Your task to perform on an android device: open sync settings in chrome Image 0: 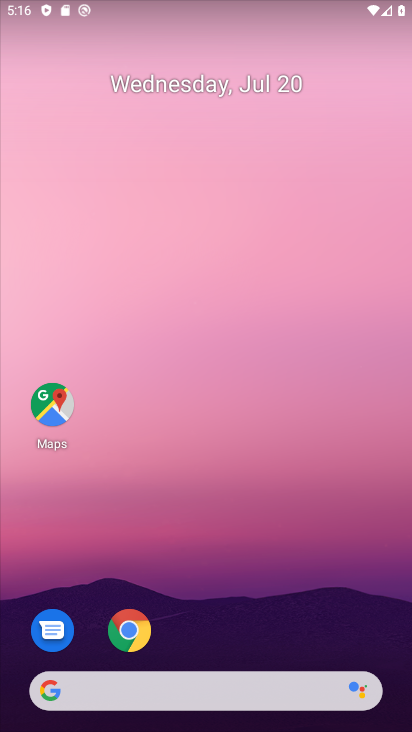
Step 0: drag from (279, 679) to (345, 27)
Your task to perform on an android device: open sync settings in chrome Image 1: 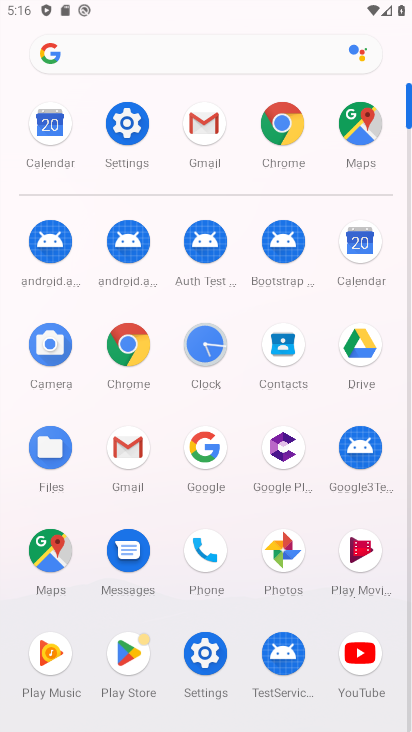
Step 1: click (121, 344)
Your task to perform on an android device: open sync settings in chrome Image 2: 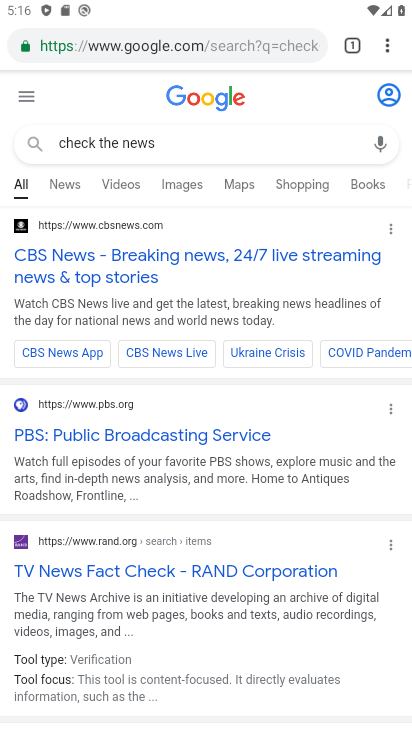
Step 2: drag from (384, 45) to (269, 445)
Your task to perform on an android device: open sync settings in chrome Image 3: 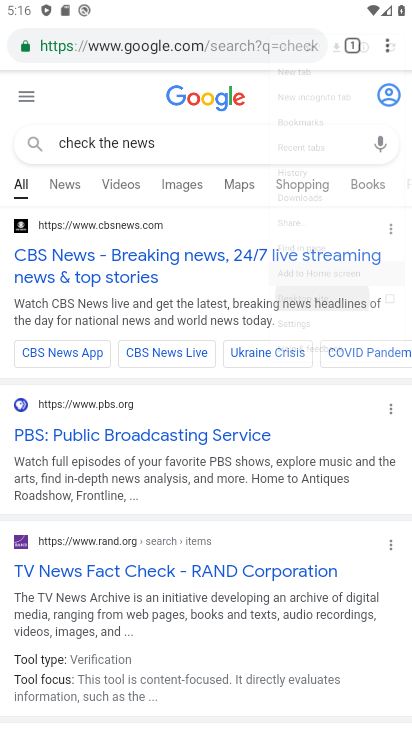
Step 3: click (241, 490)
Your task to perform on an android device: open sync settings in chrome Image 4: 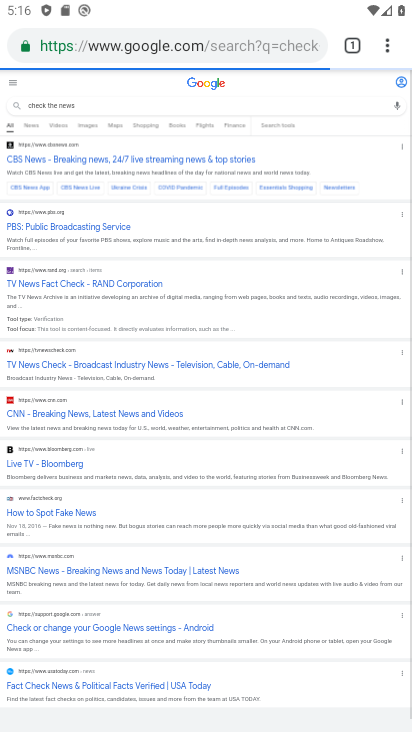
Step 4: drag from (383, 44) to (230, 544)
Your task to perform on an android device: open sync settings in chrome Image 5: 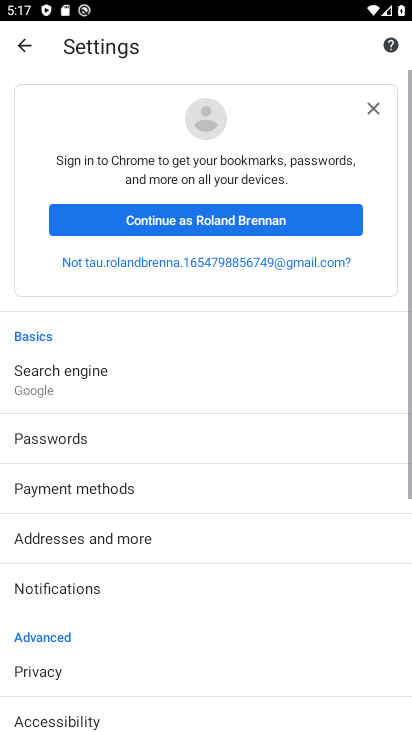
Step 5: drag from (237, 583) to (306, 144)
Your task to perform on an android device: open sync settings in chrome Image 6: 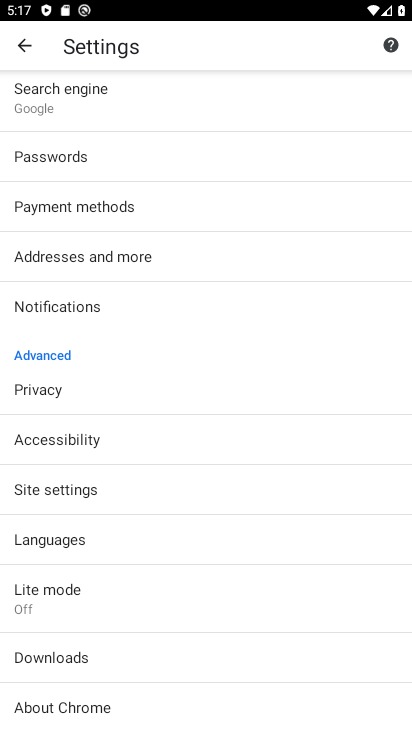
Step 6: click (96, 496)
Your task to perform on an android device: open sync settings in chrome Image 7: 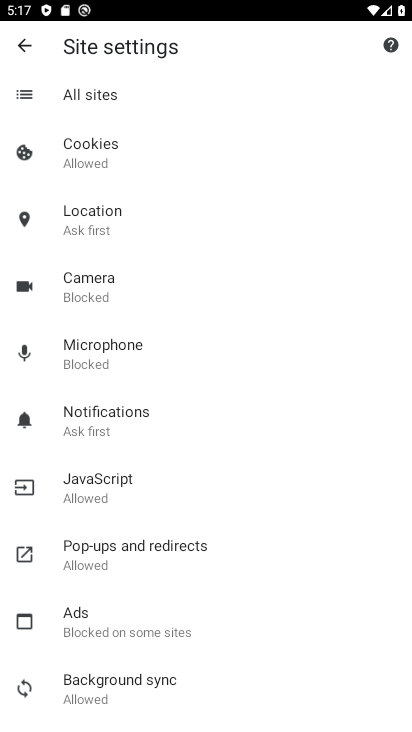
Step 7: click (139, 686)
Your task to perform on an android device: open sync settings in chrome Image 8: 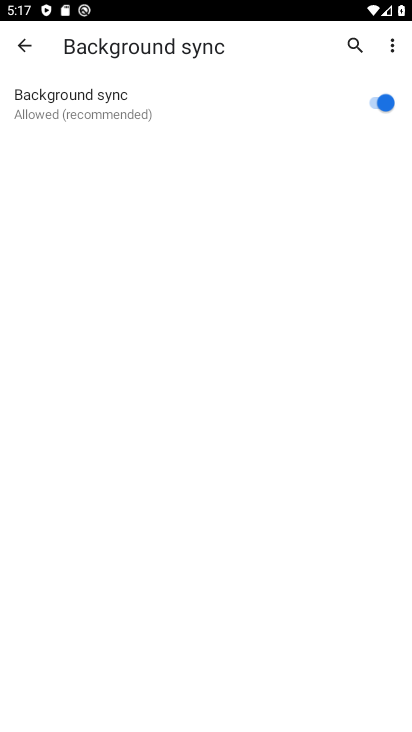
Step 8: task complete